Your task to perform on an android device: Go to Wikipedia Image 0: 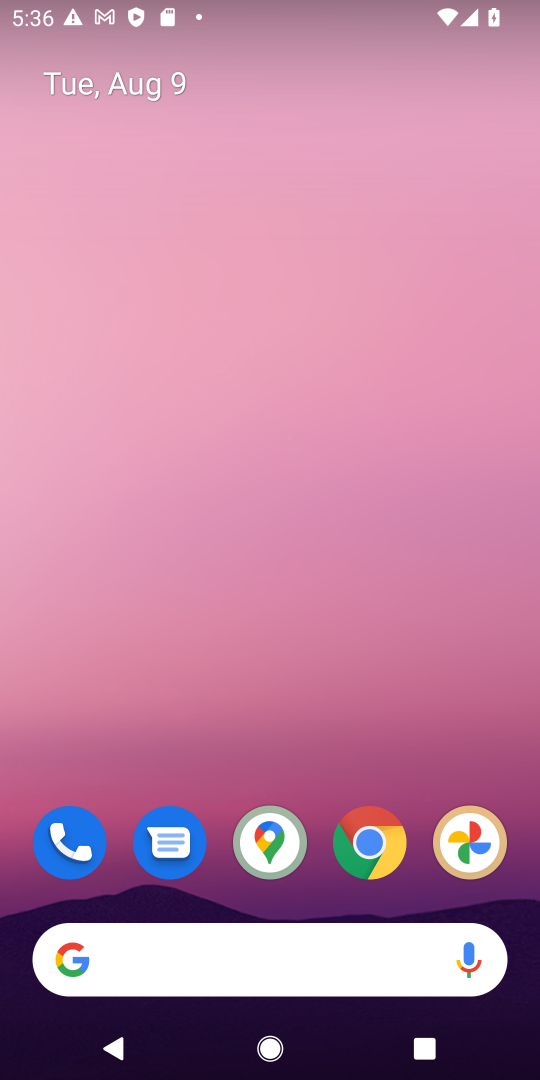
Step 0: drag from (312, 958) to (317, 150)
Your task to perform on an android device: Go to Wikipedia Image 1: 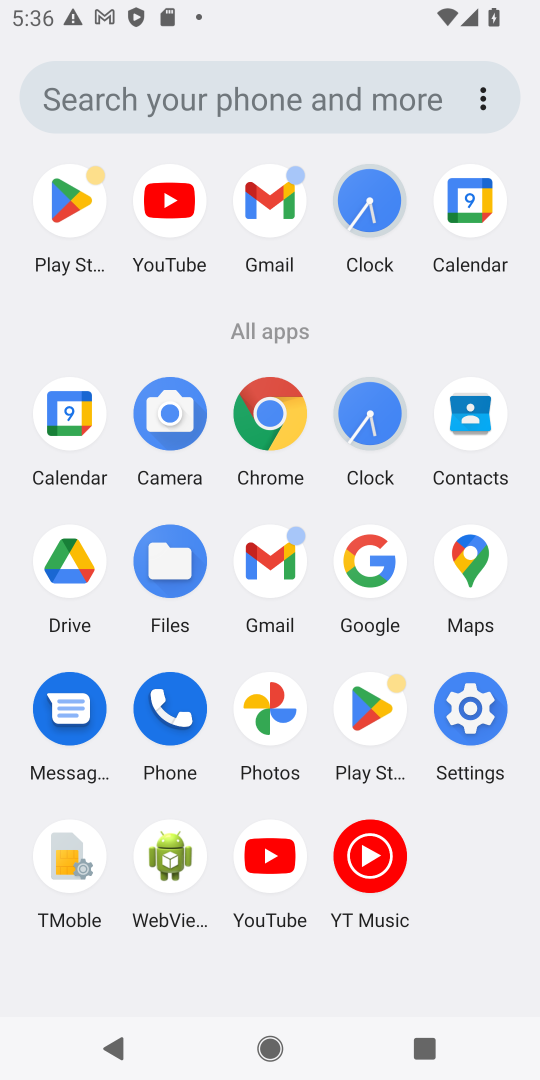
Step 1: click (274, 426)
Your task to perform on an android device: Go to Wikipedia Image 2: 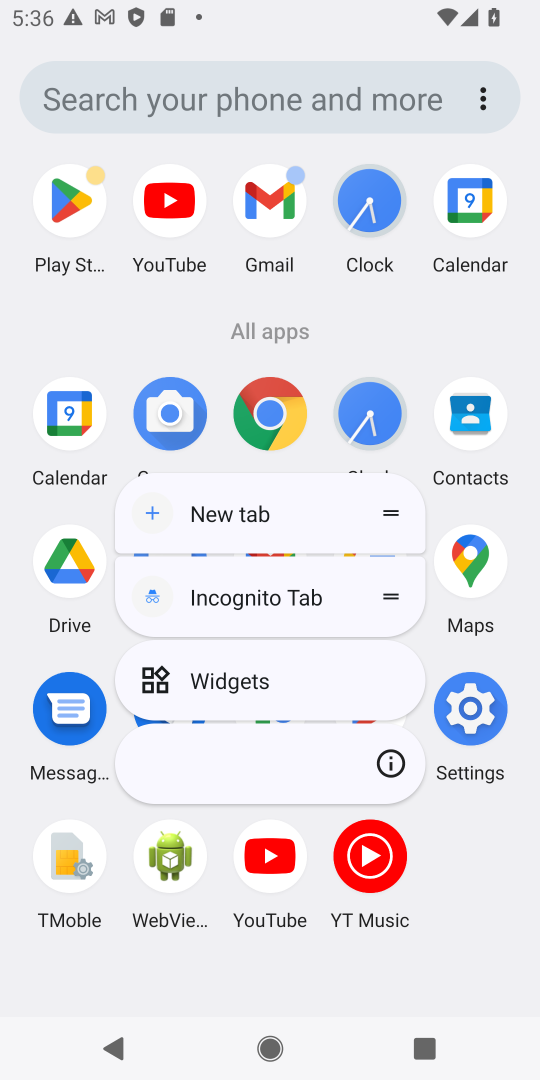
Step 2: click (274, 424)
Your task to perform on an android device: Go to Wikipedia Image 3: 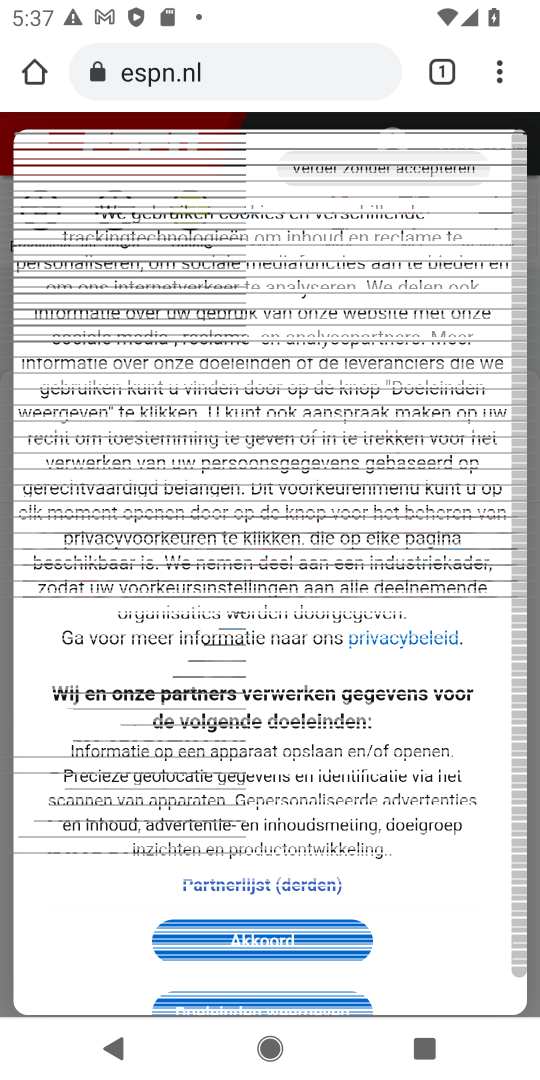
Step 3: click (251, 80)
Your task to perform on an android device: Go to Wikipedia Image 4: 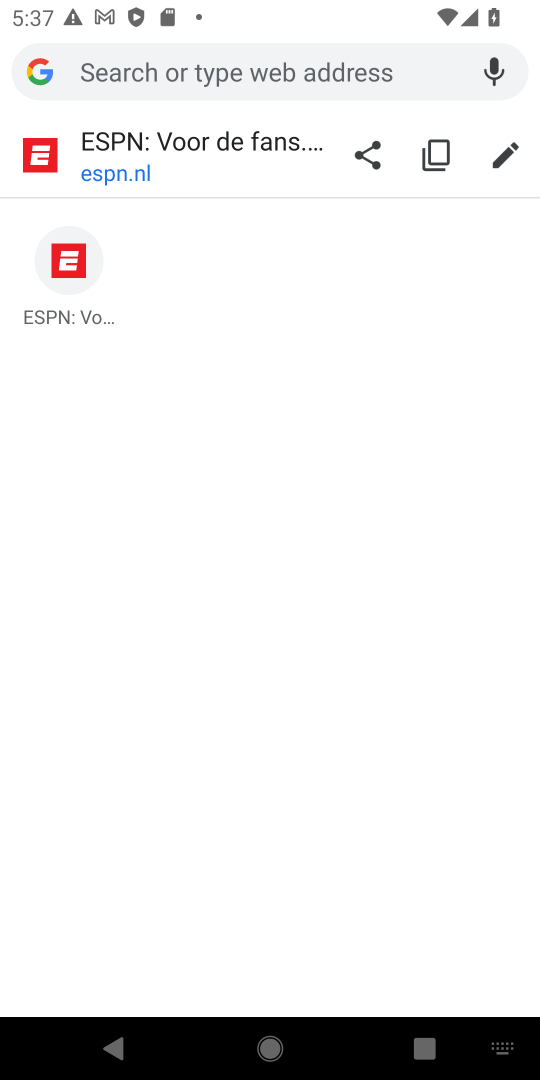
Step 4: press back button
Your task to perform on an android device: Go to Wikipedia Image 5: 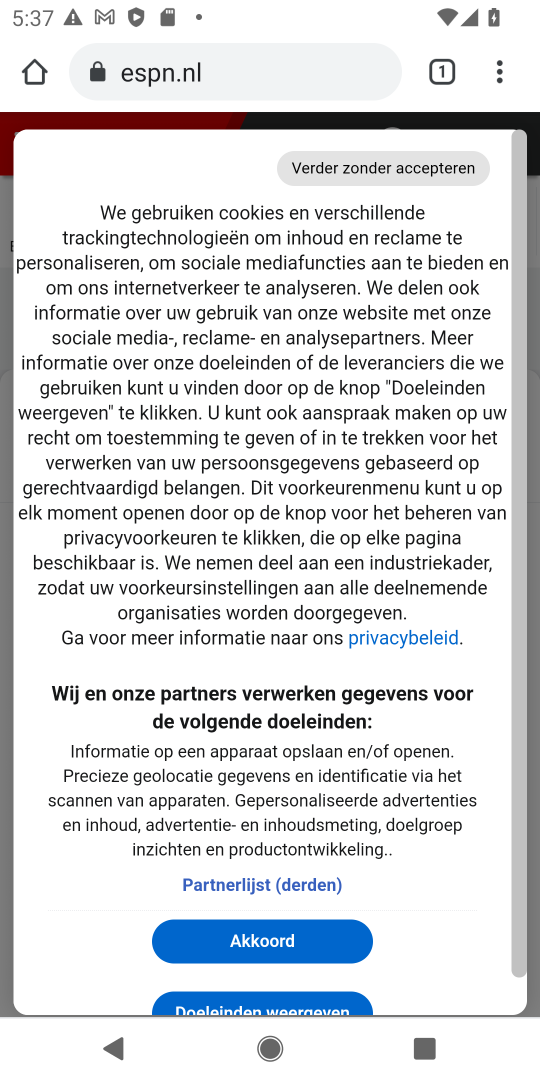
Step 5: press back button
Your task to perform on an android device: Go to Wikipedia Image 6: 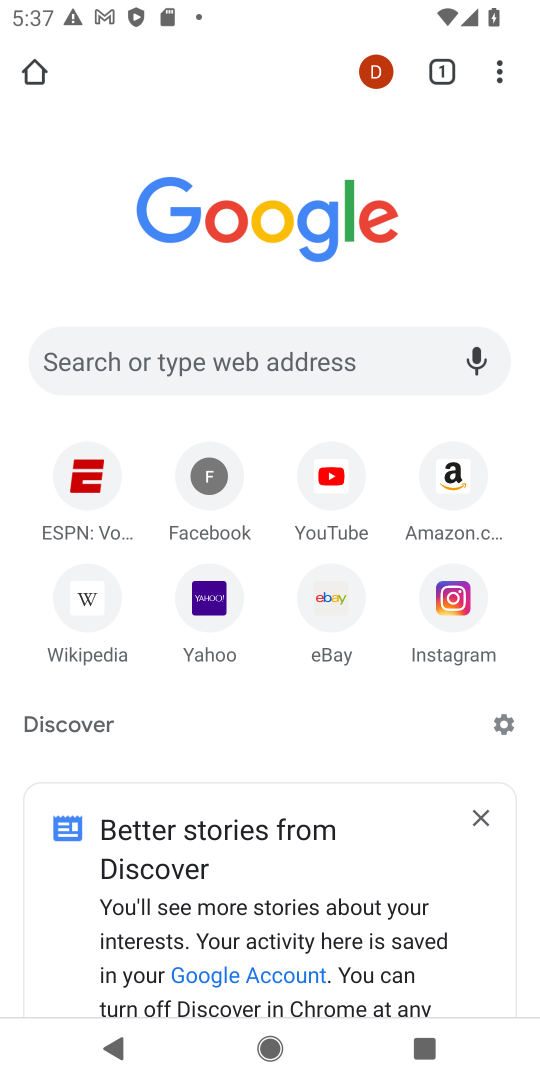
Step 6: click (78, 608)
Your task to perform on an android device: Go to Wikipedia Image 7: 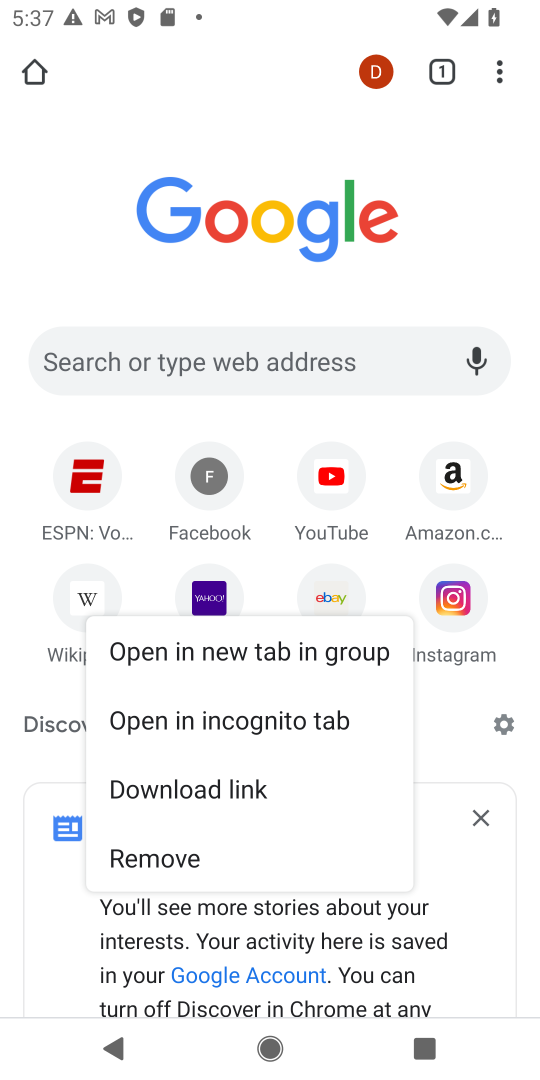
Step 7: click (75, 611)
Your task to perform on an android device: Go to Wikipedia Image 8: 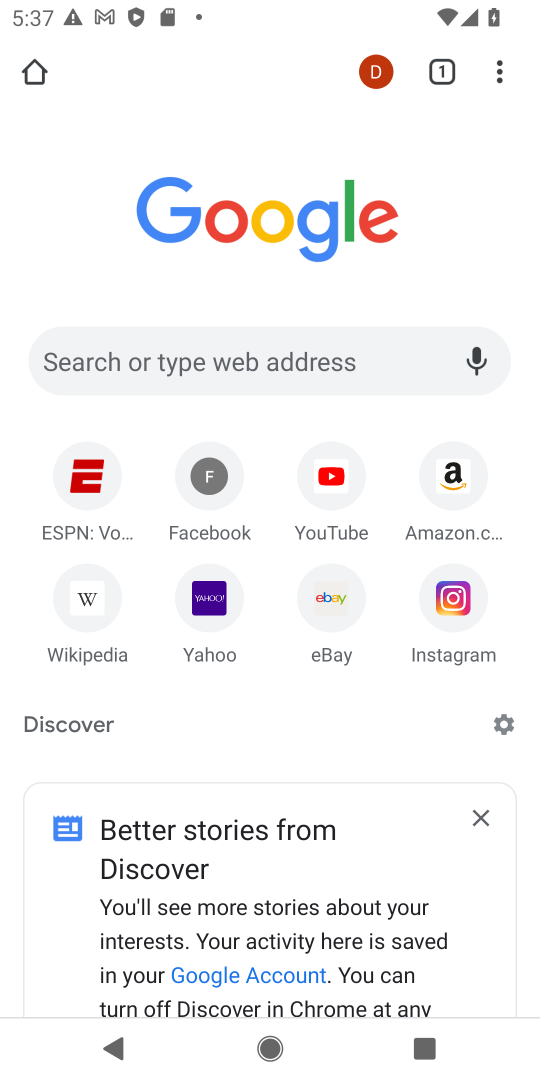
Step 8: click (81, 604)
Your task to perform on an android device: Go to Wikipedia Image 9: 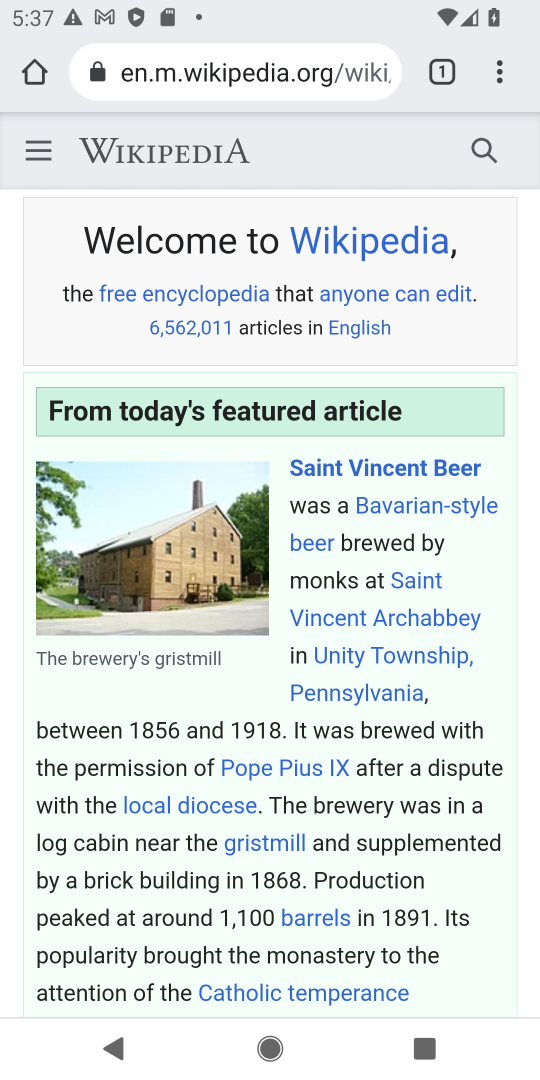
Step 9: task complete